Your task to perform on an android device: What's the weather today? Image 0: 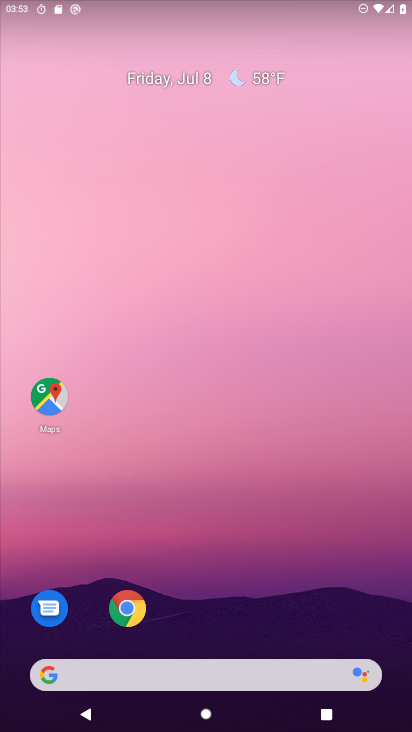
Step 0: drag from (255, 694) to (259, 74)
Your task to perform on an android device: What's the weather today? Image 1: 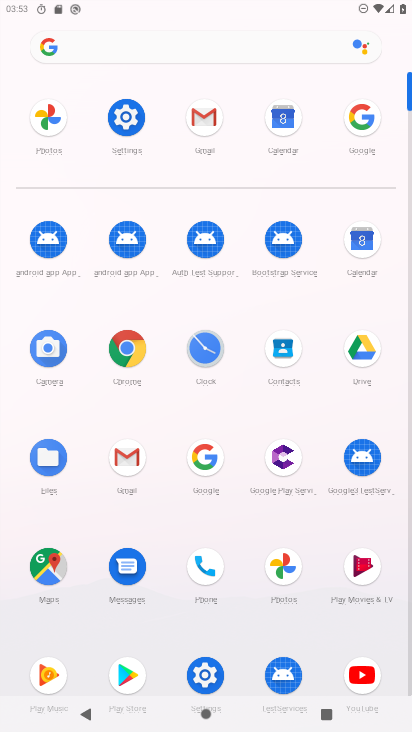
Step 1: click (206, 455)
Your task to perform on an android device: What's the weather today? Image 2: 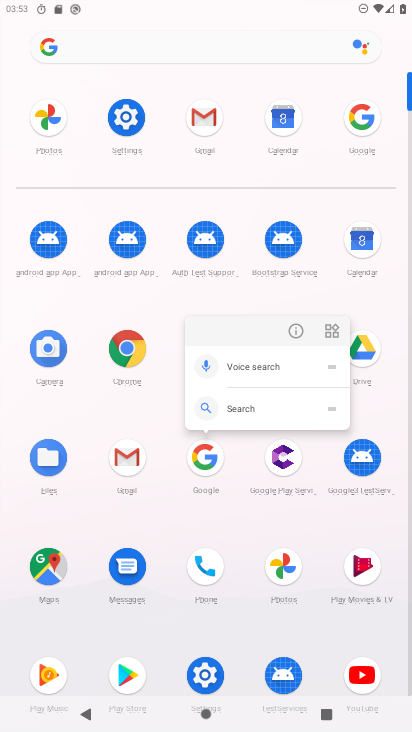
Step 2: click (206, 455)
Your task to perform on an android device: What's the weather today? Image 3: 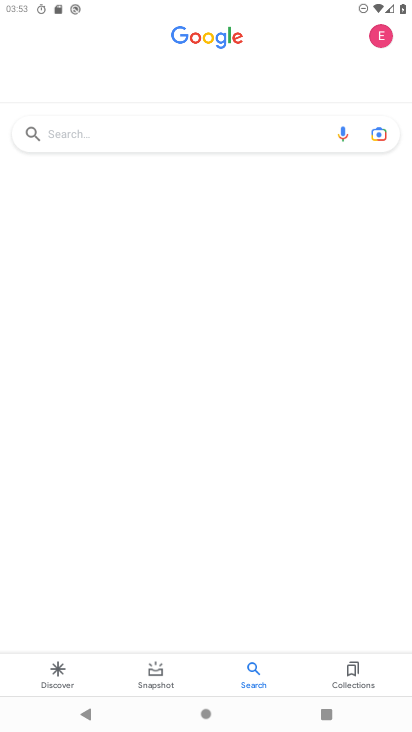
Step 3: click (164, 135)
Your task to perform on an android device: What's the weather today? Image 4: 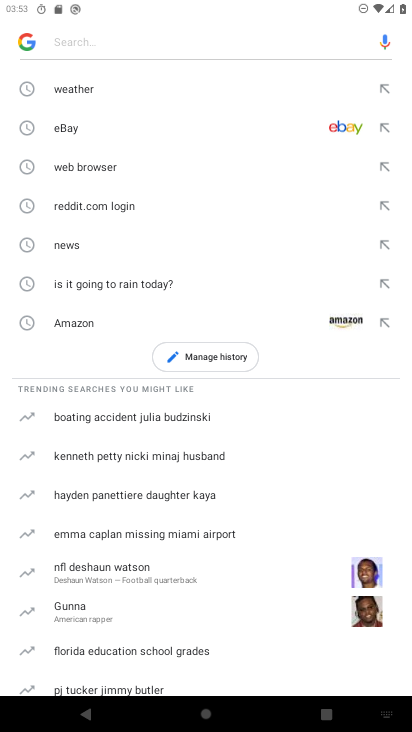
Step 4: click (56, 88)
Your task to perform on an android device: What's the weather today? Image 5: 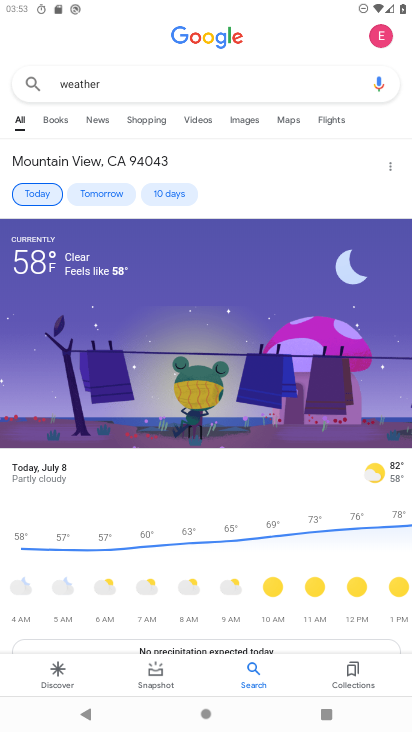
Step 5: click (37, 195)
Your task to perform on an android device: What's the weather today? Image 6: 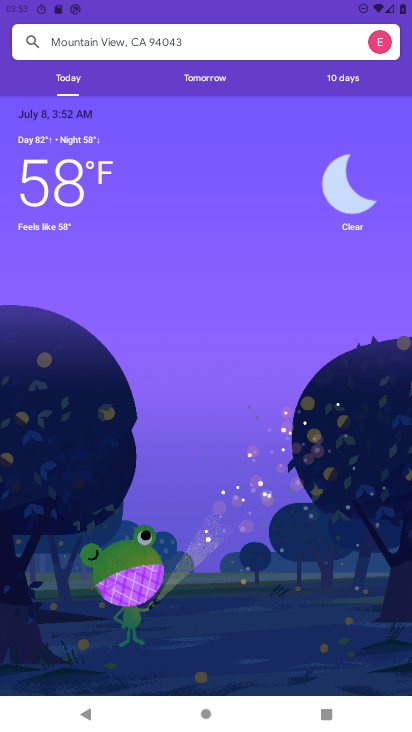
Step 6: task complete